Your task to perform on an android device: Search for "apple airpods pro" on newegg, select the first entry, add it to the cart, then select checkout. Image 0: 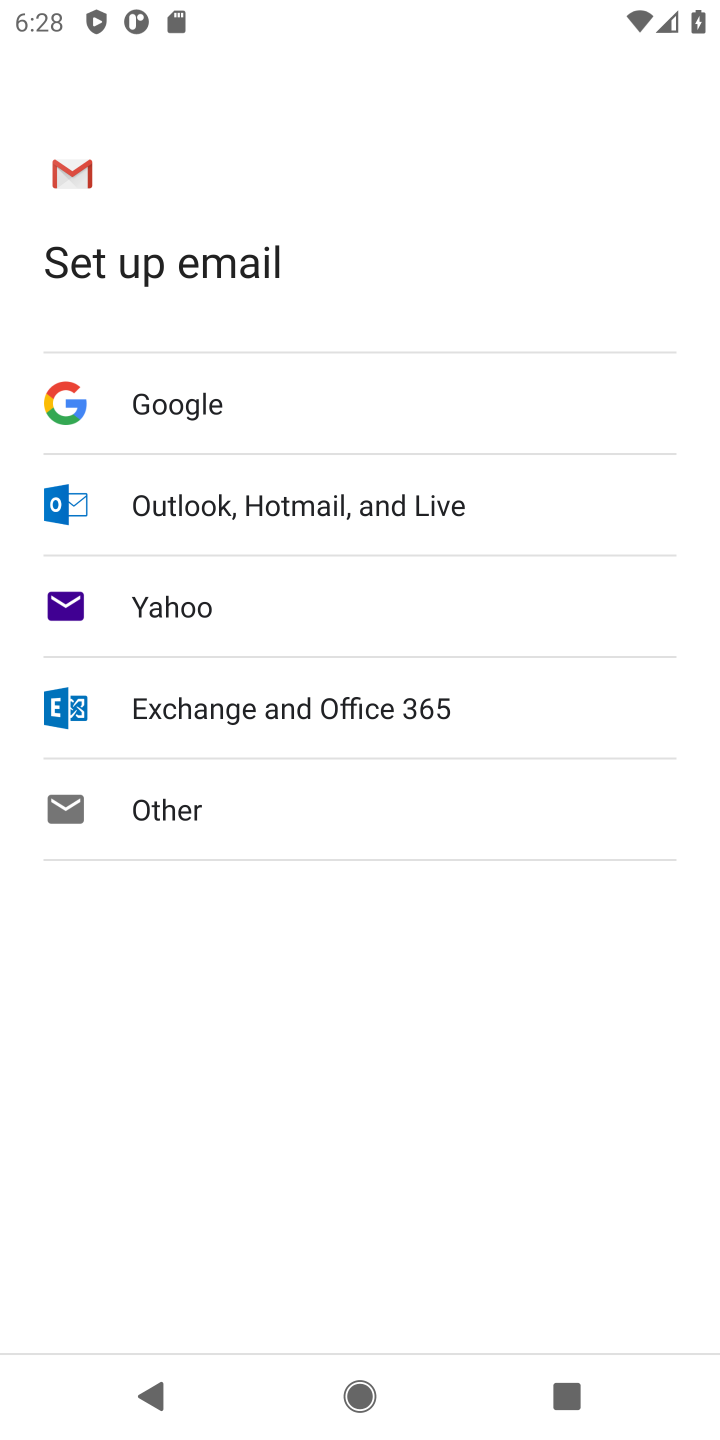
Step 0: press home button
Your task to perform on an android device: Search for "apple airpods pro" on newegg, select the first entry, add it to the cart, then select checkout. Image 1: 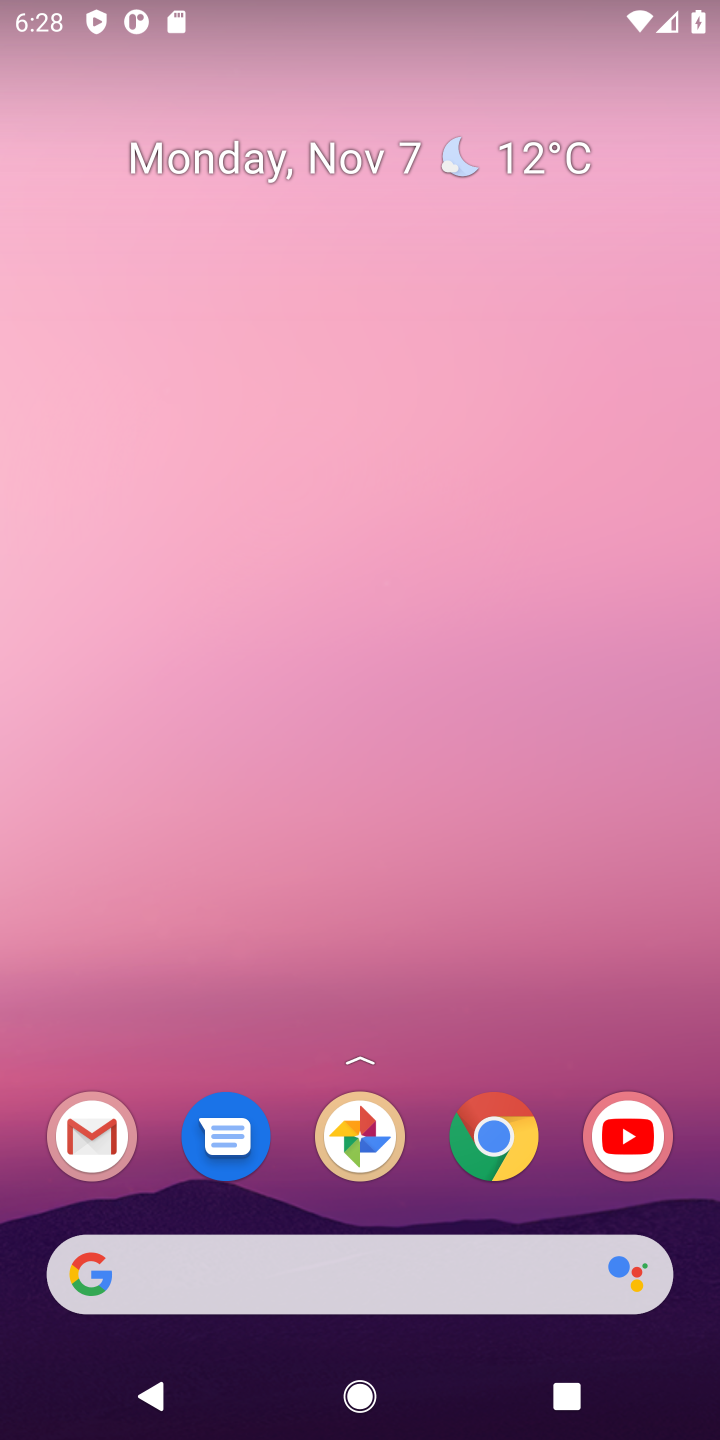
Step 1: click (81, 1264)
Your task to perform on an android device: Search for "apple airpods pro" on newegg, select the first entry, add it to the cart, then select checkout. Image 2: 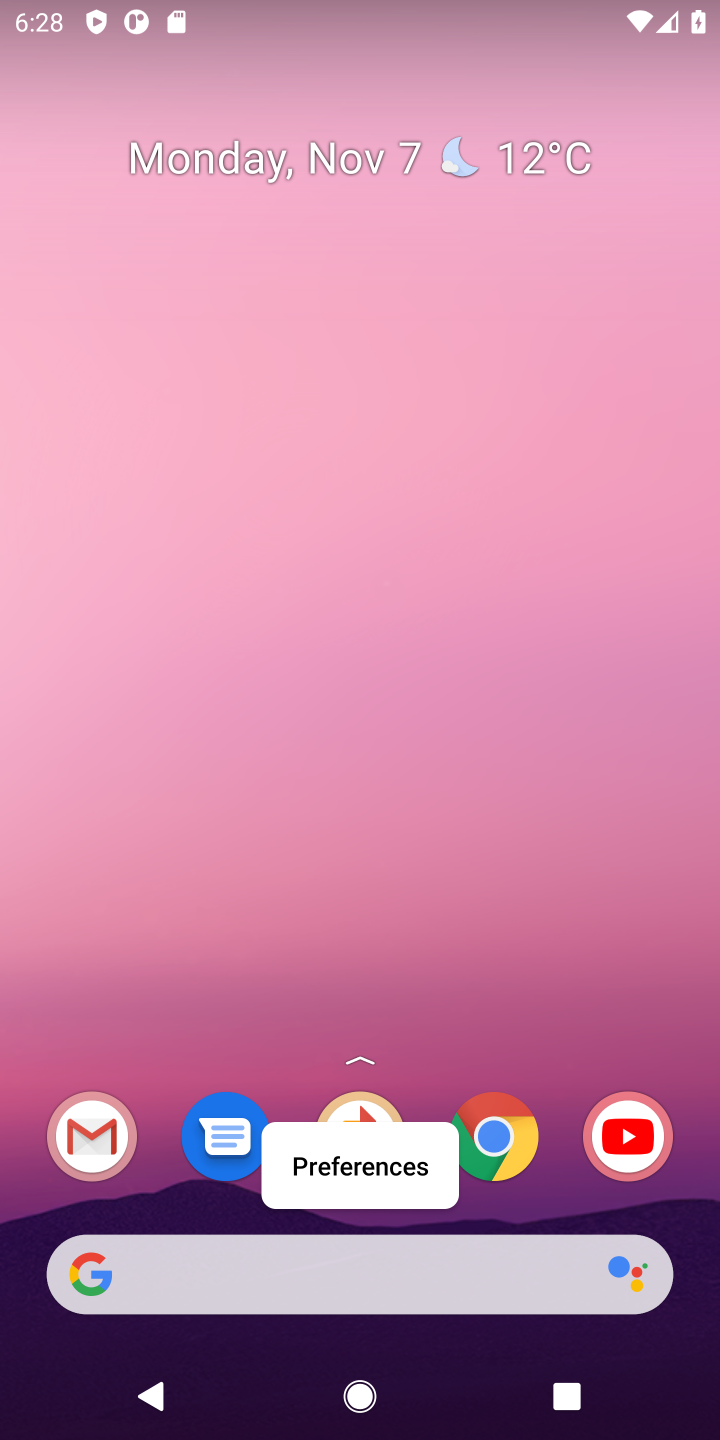
Step 2: click (83, 1266)
Your task to perform on an android device: Search for "apple airpods pro" on newegg, select the first entry, add it to the cart, then select checkout. Image 3: 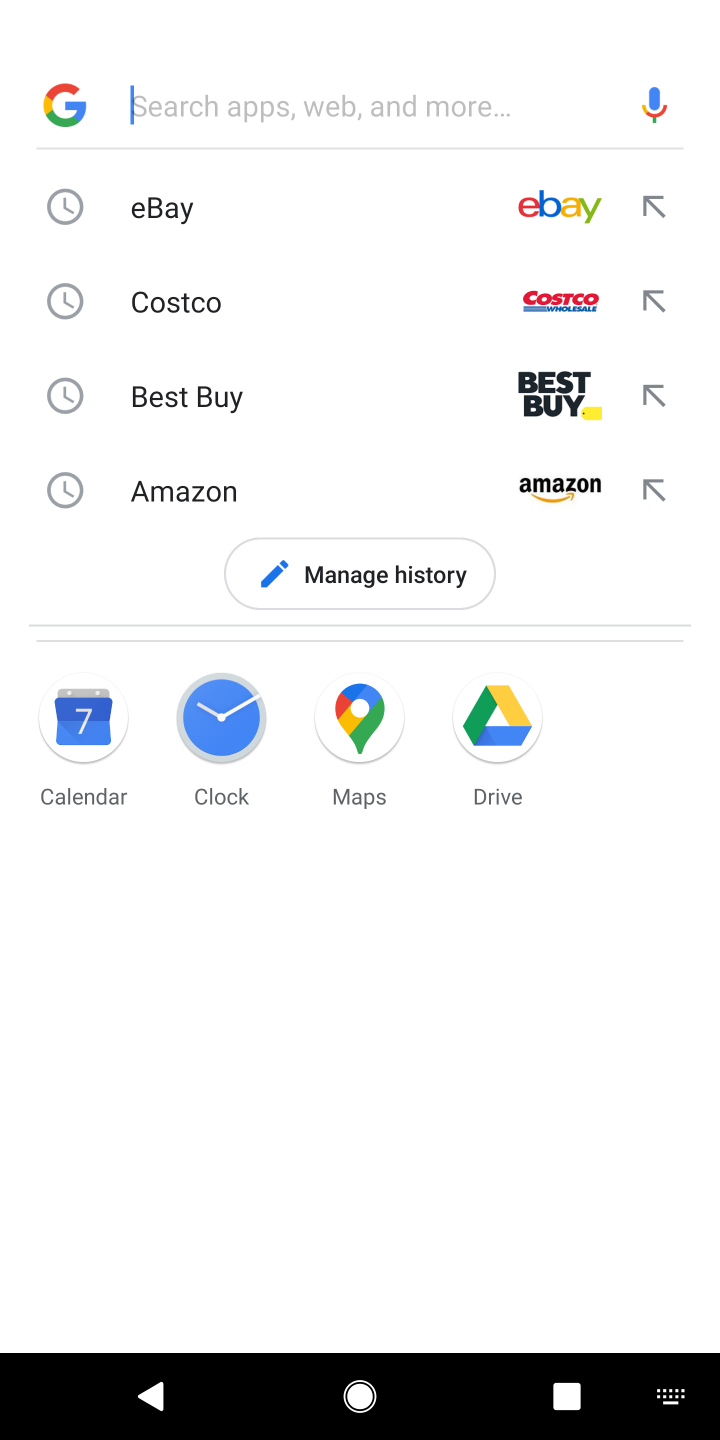
Step 3: type "newegg"
Your task to perform on an android device: Search for "apple airpods pro" on newegg, select the first entry, add it to the cart, then select checkout. Image 4: 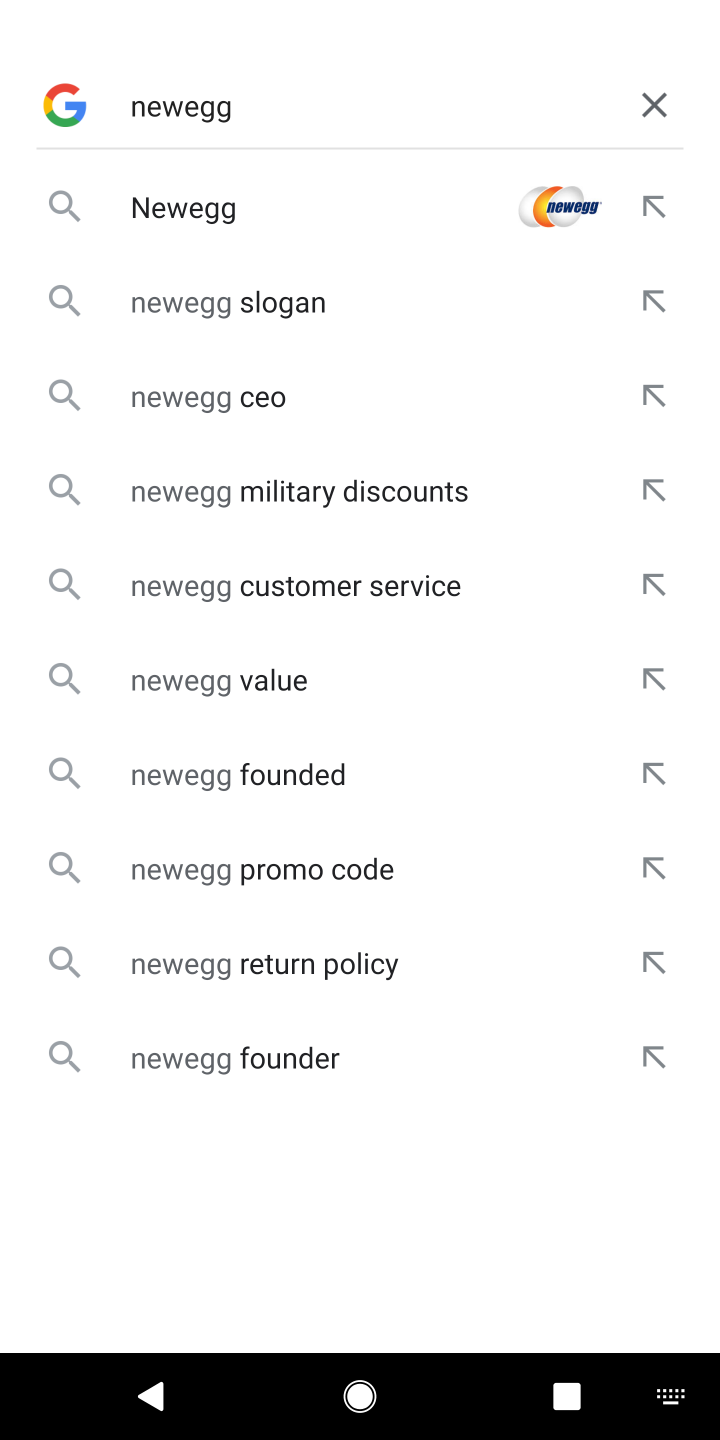
Step 4: type ""
Your task to perform on an android device: Search for "apple airpods pro" on newegg, select the first entry, add it to the cart, then select checkout. Image 5: 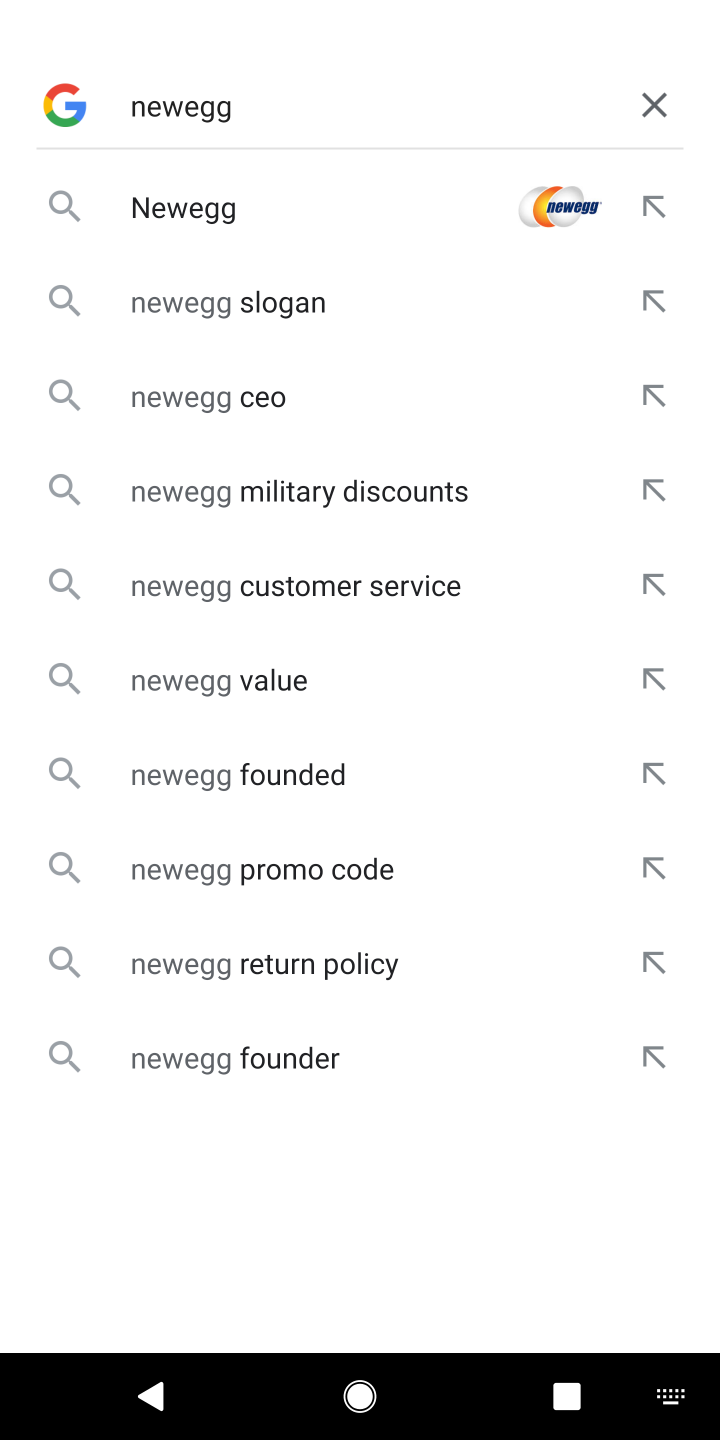
Step 5: click (167, 202)
Your task to perform on an android device: Search for "apple airpods pro" on newegg, select the first entry, add it to the cart, then select checkout. Image 6: 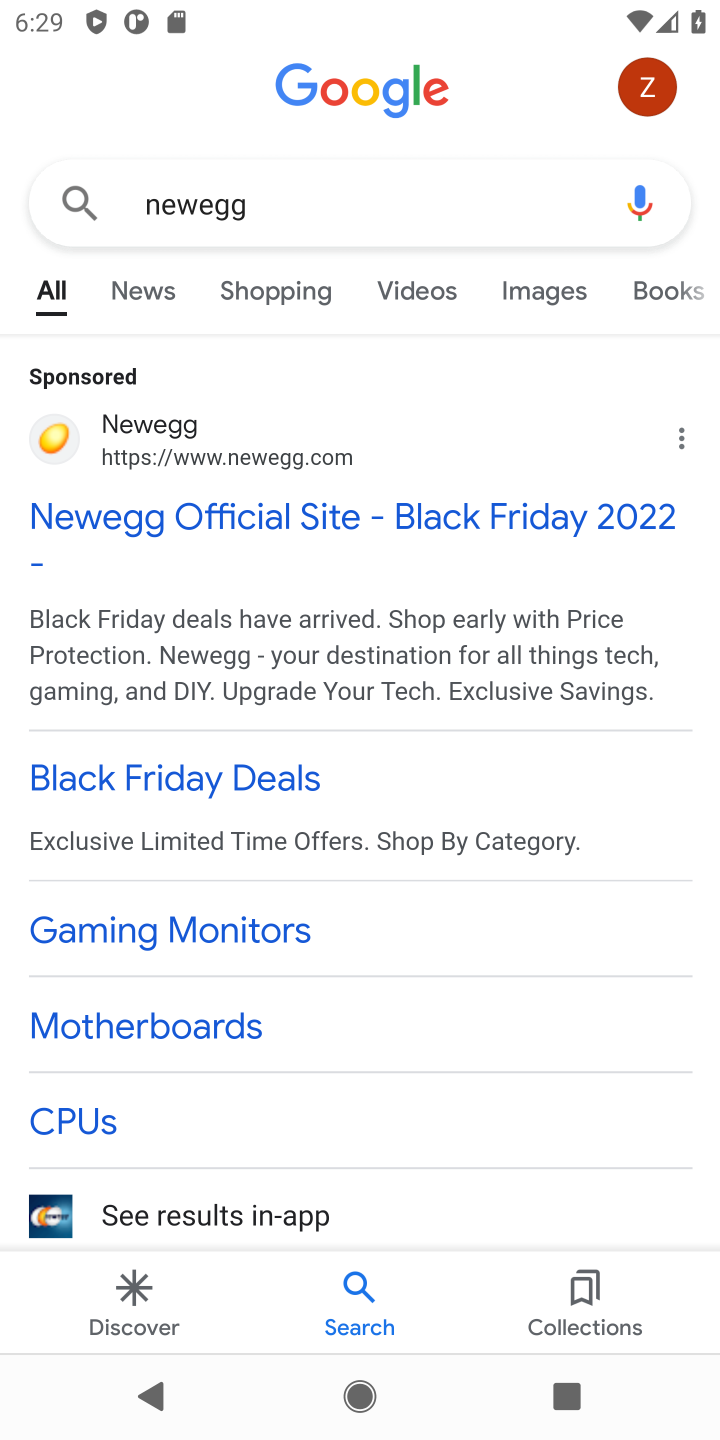
Step 6: click (141, 410)
Your task to perform on an android device: Search for "apple airpods pro" on newegg, select the first entry, add it to the cart, then select checkout. Image 7: 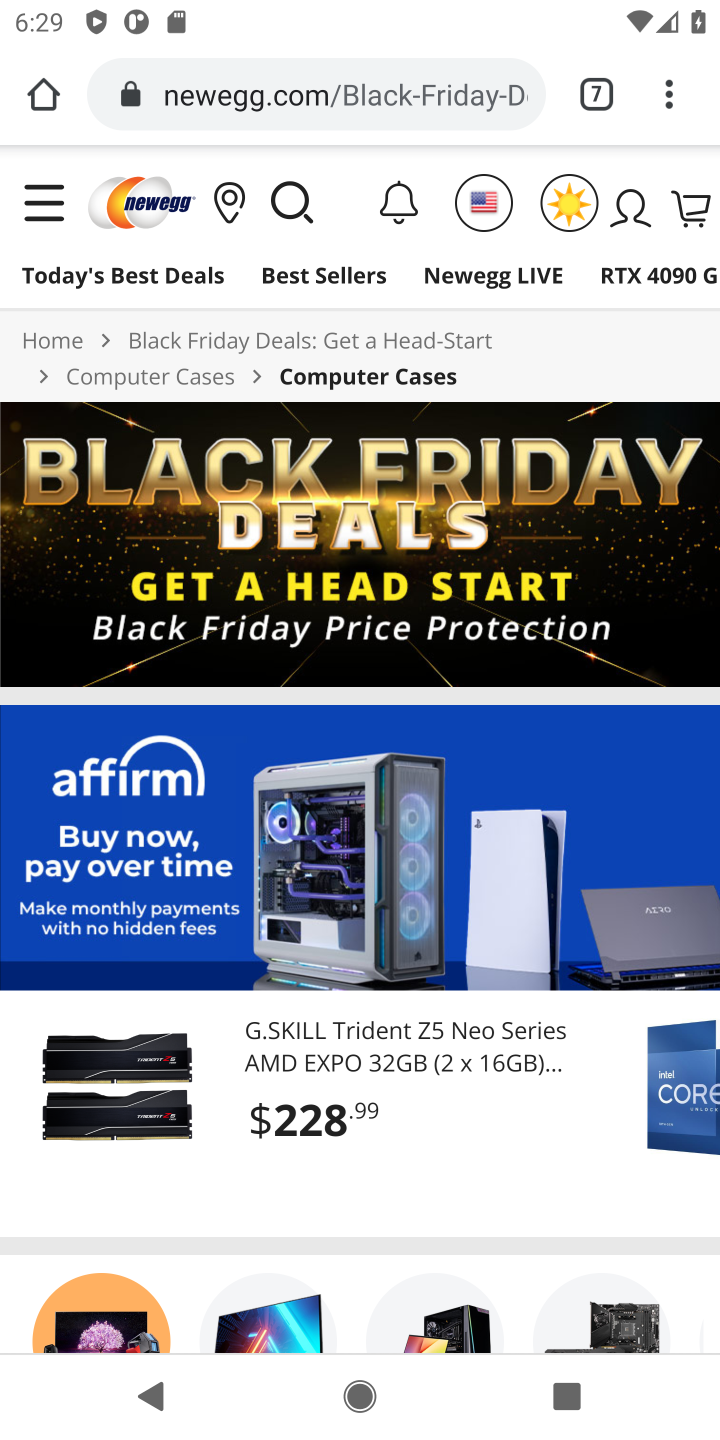
Step 7: click (285, 190)
Your task to perform on an android device: Search for "apple airpods pro" on newegg, select the first entry, add it to the cart, then select checkout. Image 8: 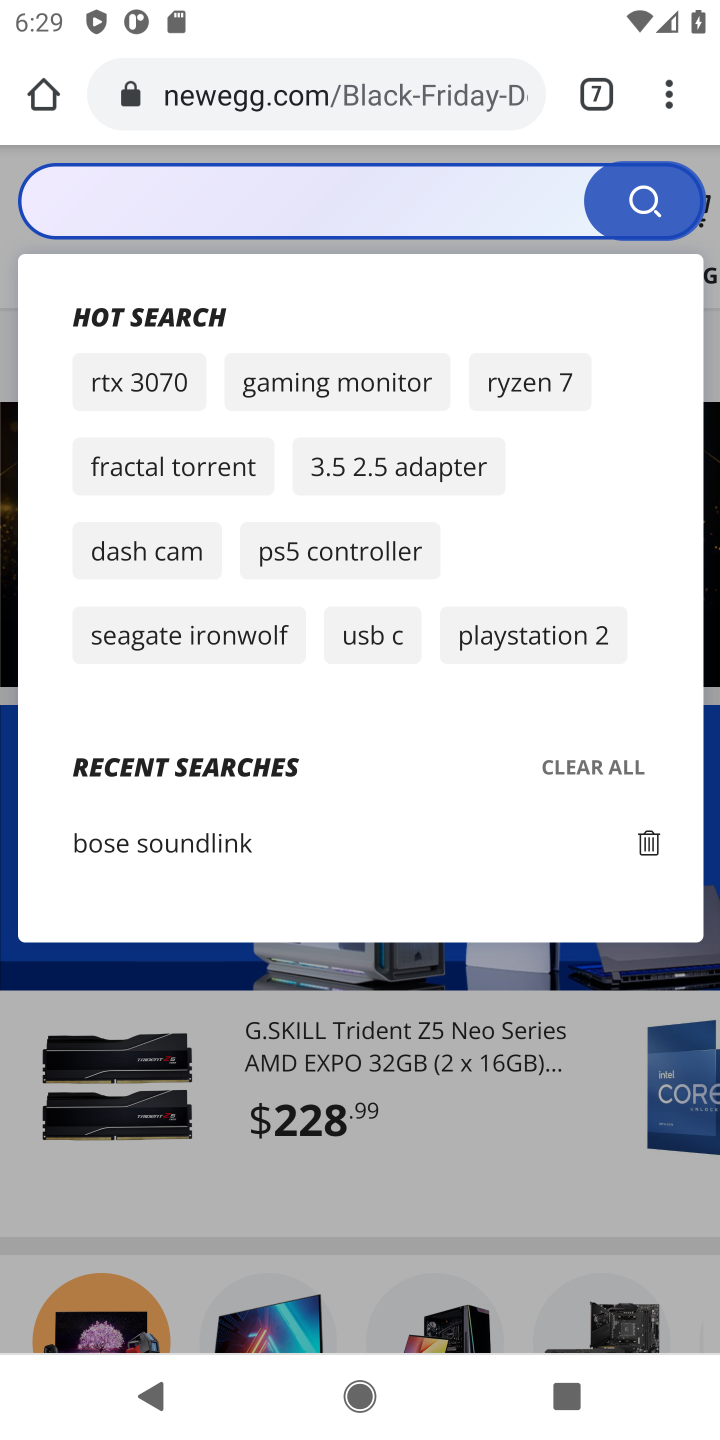
Step 8: click (106, 206)
Your task to perform on an android device: Search for "apple airpods pro" on newegg, select the first entry, add it to the cart, then select checkout. Image 9: 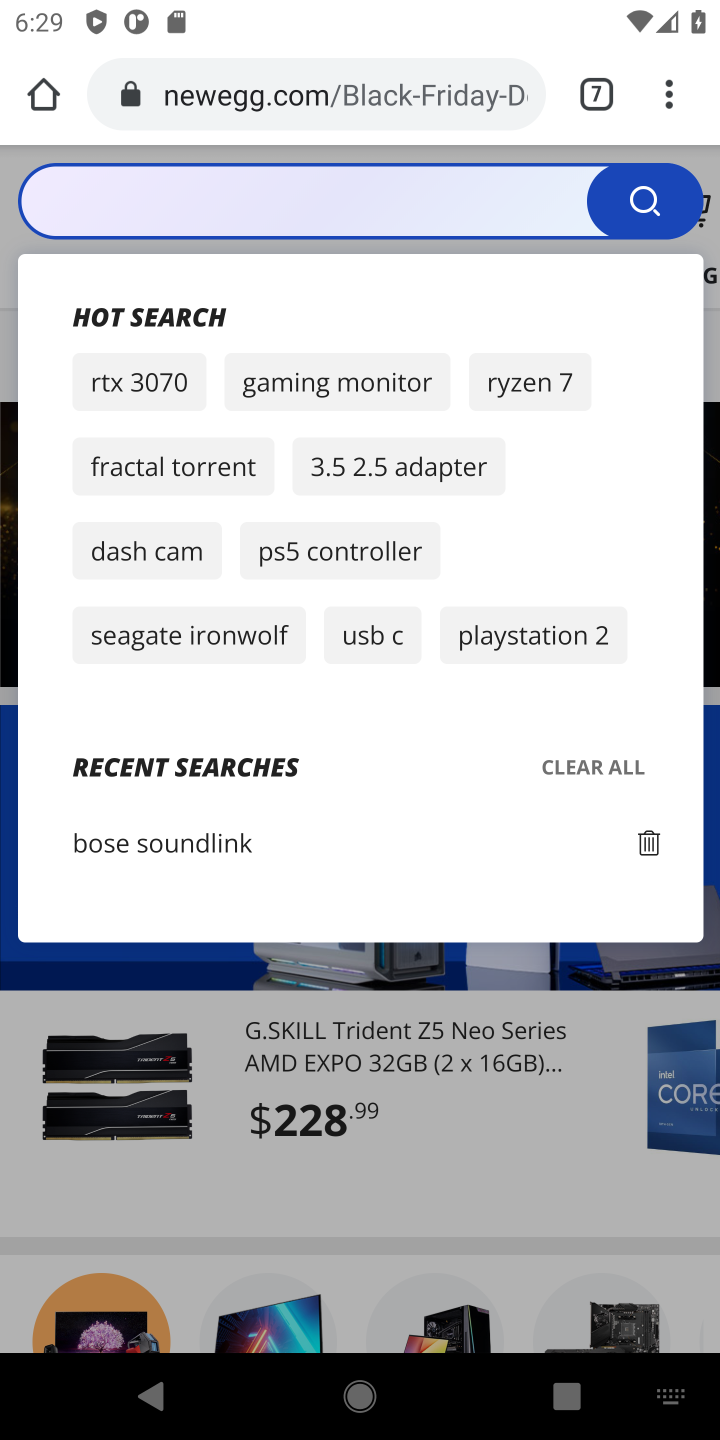
Step 9: type "apple airpods pro"
Your task to perform on an android device: Search for "apple airpods pro" on newegg, select the first entry, add it to the cart, then select checkout. Image 10: 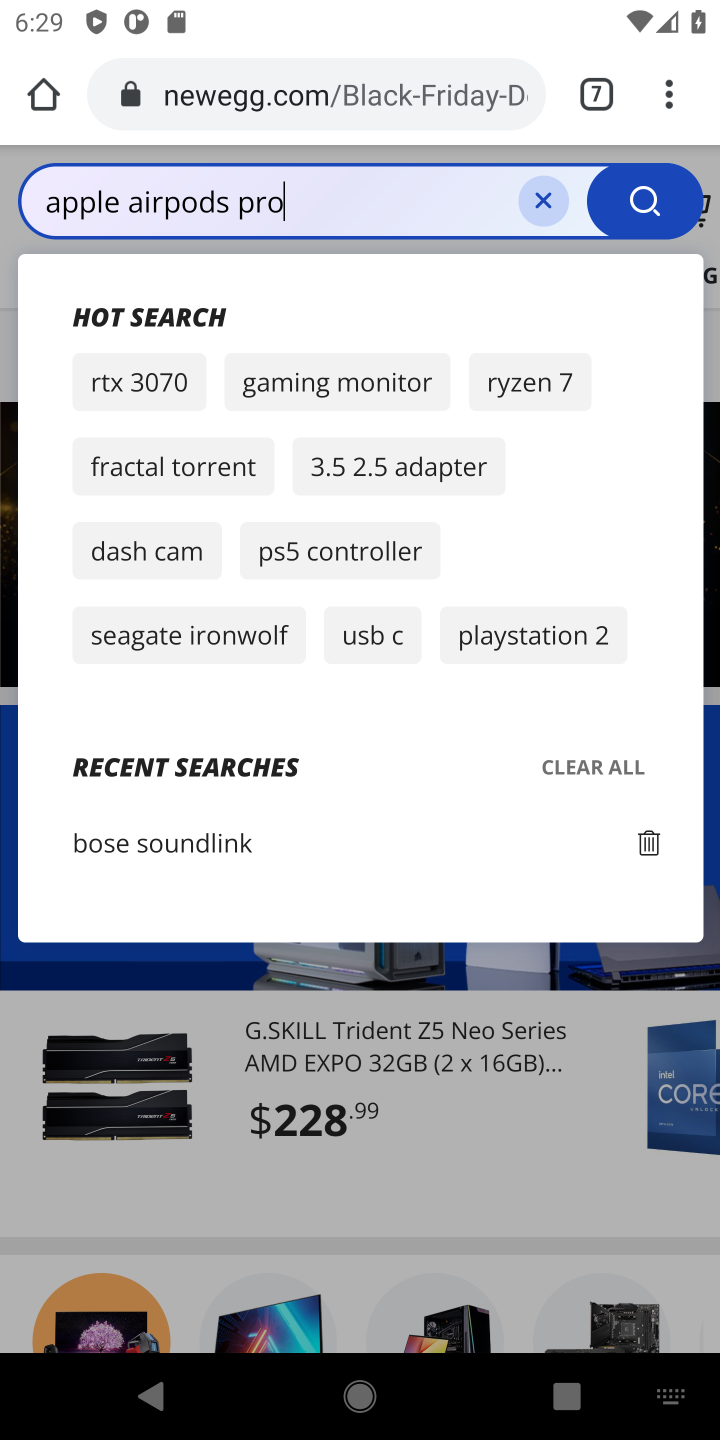
Step 10: type ""
Your task to perform on an android device: Search for "apple airpods pro" on newegg, select the first entry, add it to the cart, then select checkout. Image 11: 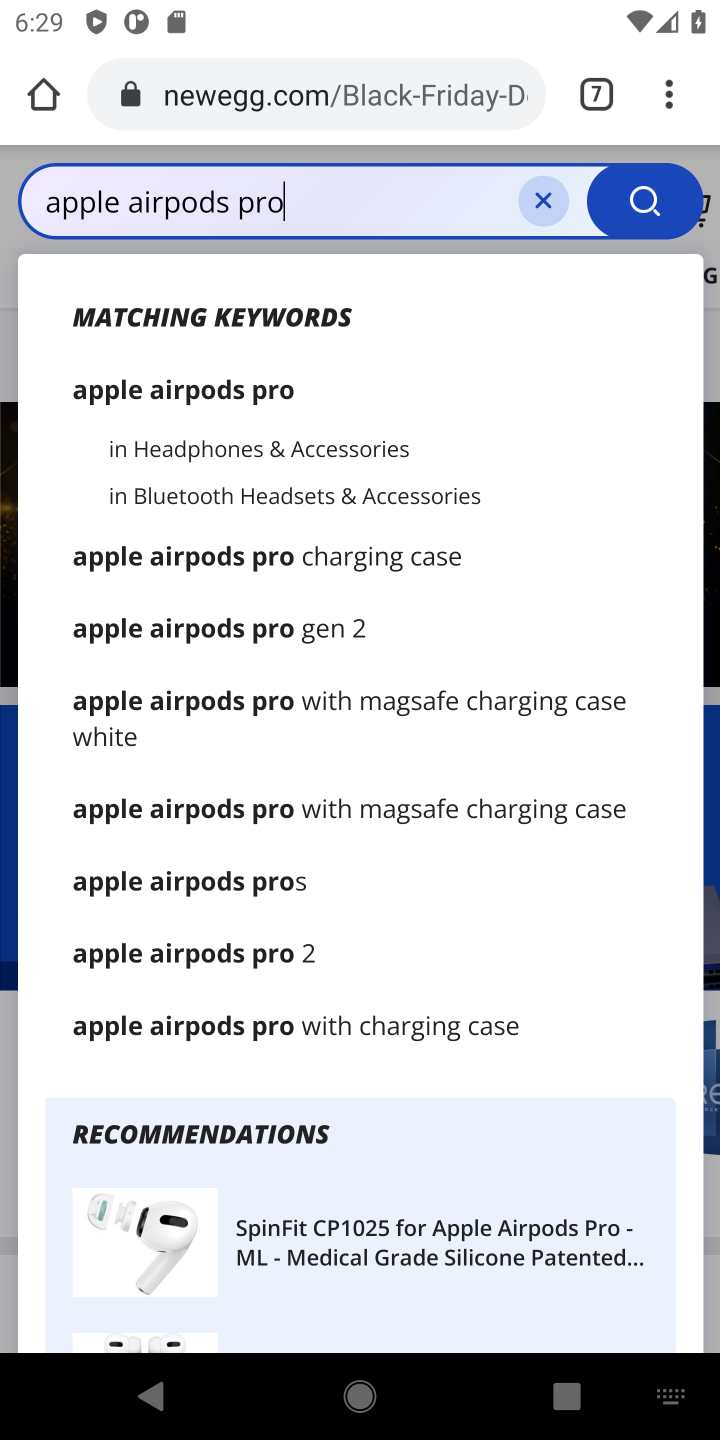
Step 11: click (179, 391)
Your task to perform on an android device: Search for "apple airpods pro" on newegg, select the first entry, add it to the cart, then select checkout. Image 12: 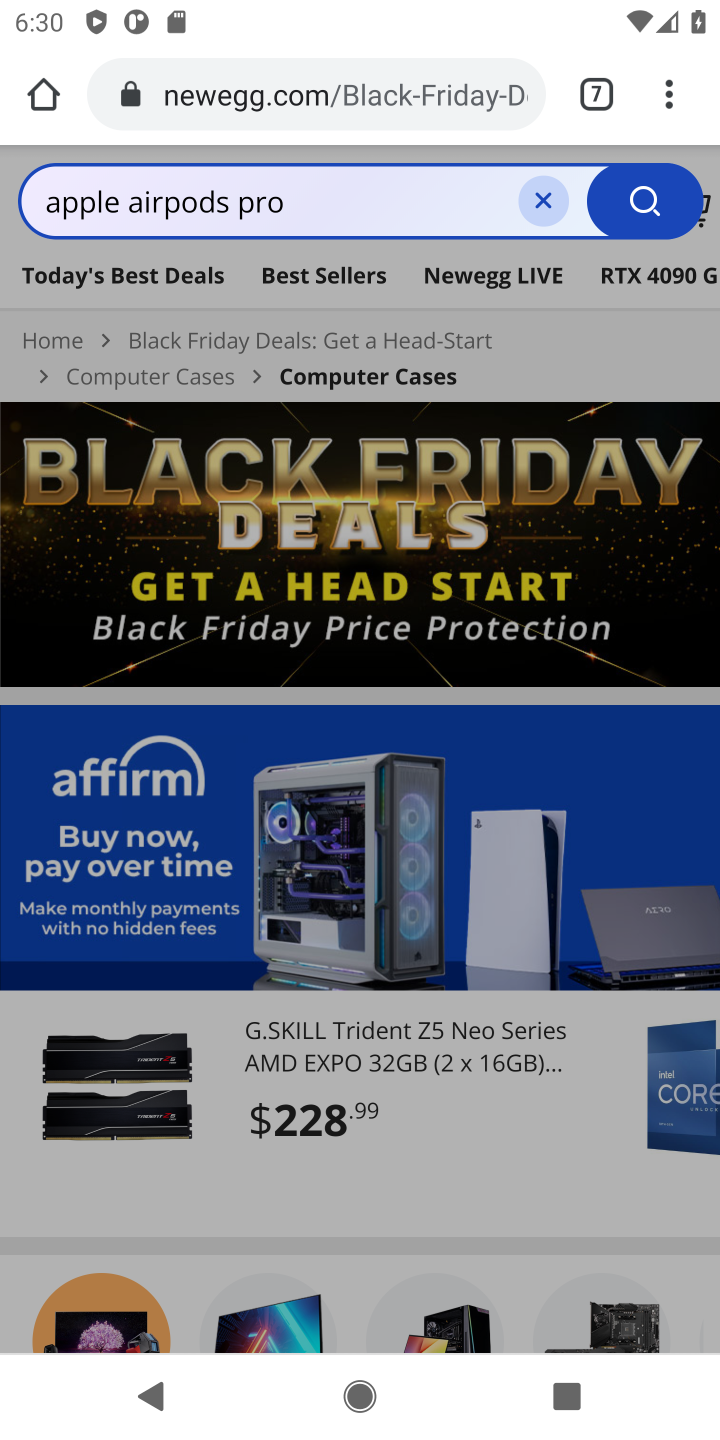
Step 12: click (638, 192)
Your task to perform on an android device: Search for "apple airpods pro" on newegg, select the first entry, add it to the cart, then select checkout. Image 13: 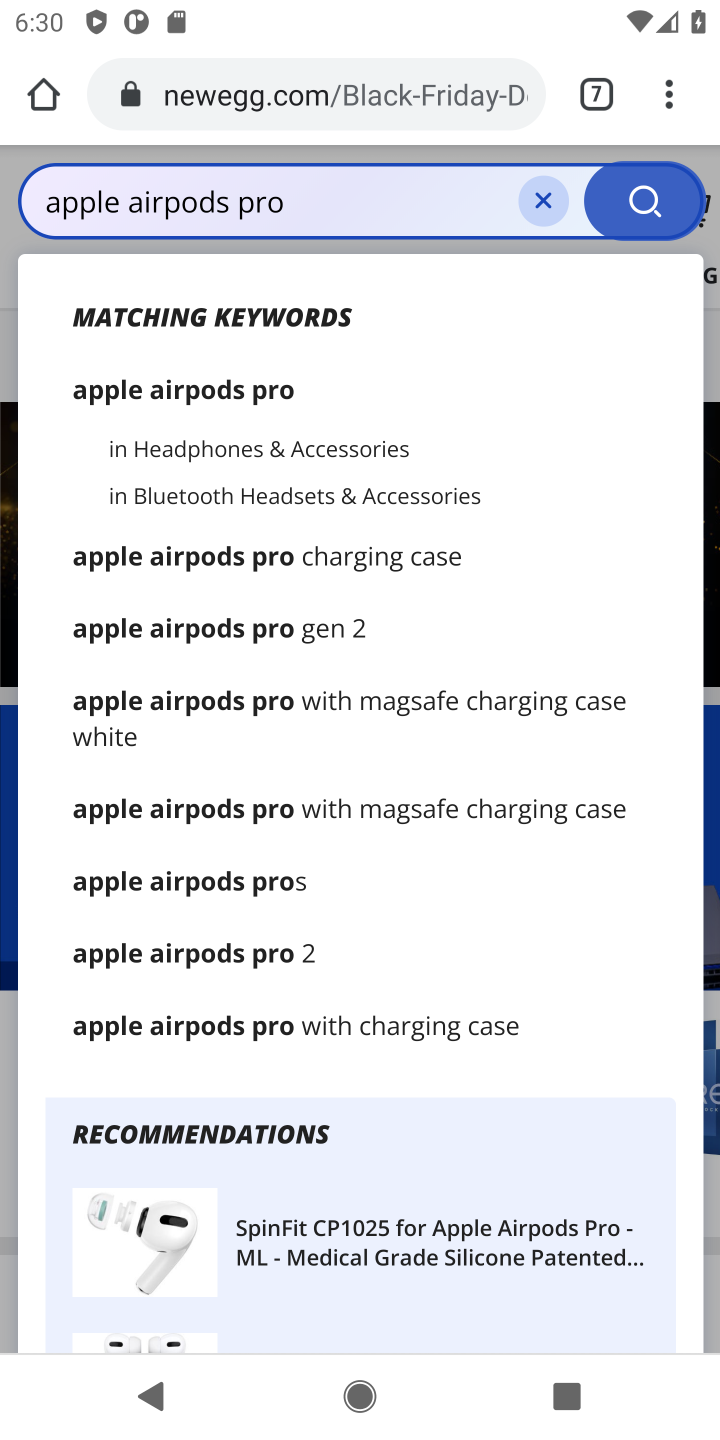
Step 13: click (644, 200)
Your task to perform on an android device: Search for "apple airpods pro" on newegg, select the first entry, add it to the cart, then select checkout. Image 14: 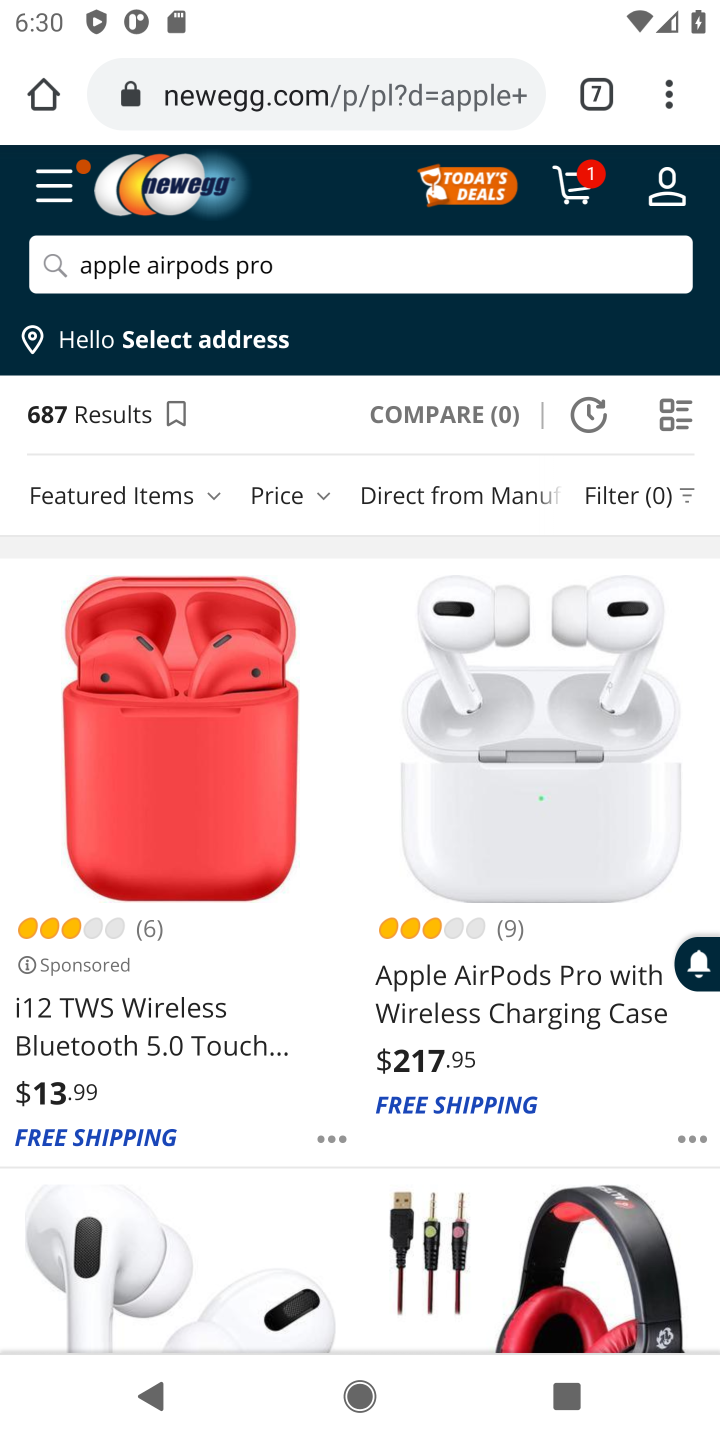
Step 14: click (451, 902)
Your task to perform on an android device: Search for "apple airpods pro" on newegg, select the first entry, add it to the cart, then select checkout. Image 15: 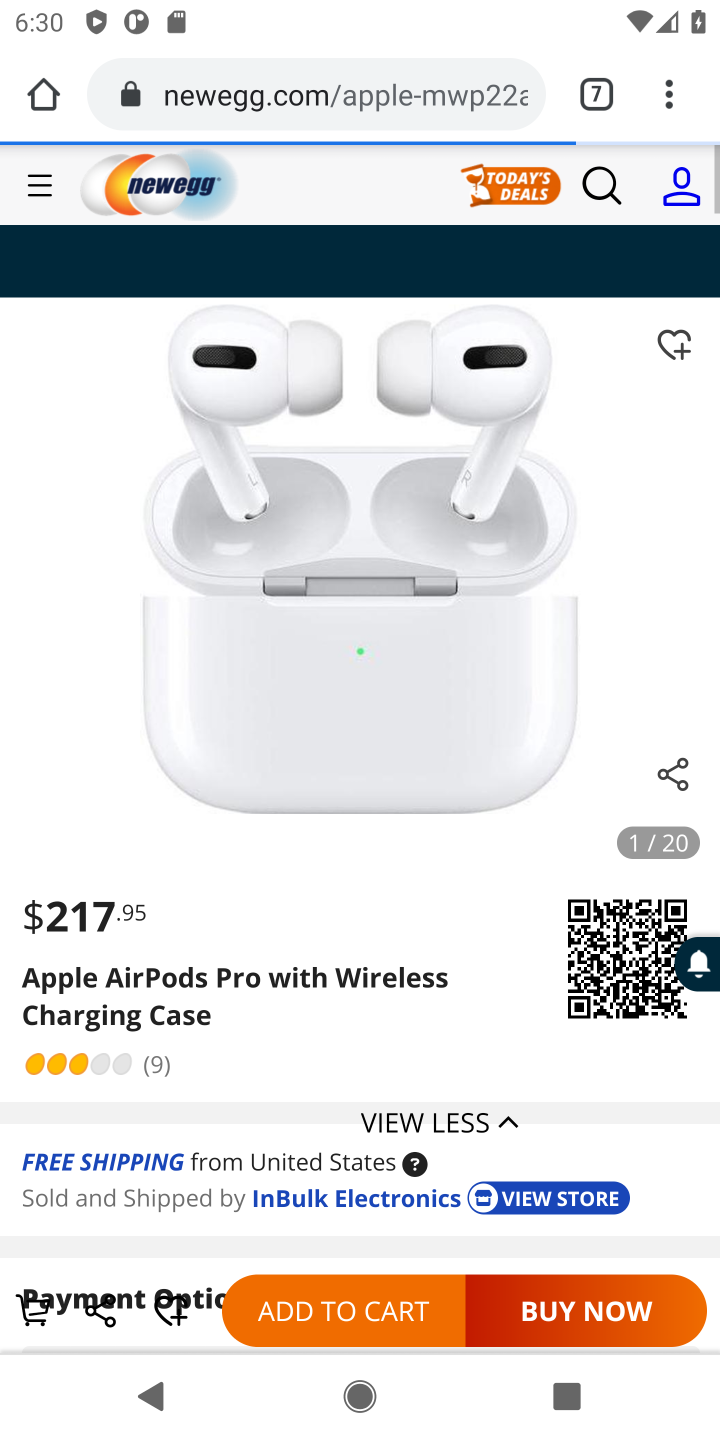
Step 15: click (518, 992)
Your task to perform on an android device: Search for "apple airpods pro" on newegg, select the first entry, add it to the cart, then select checkout. Image 16: 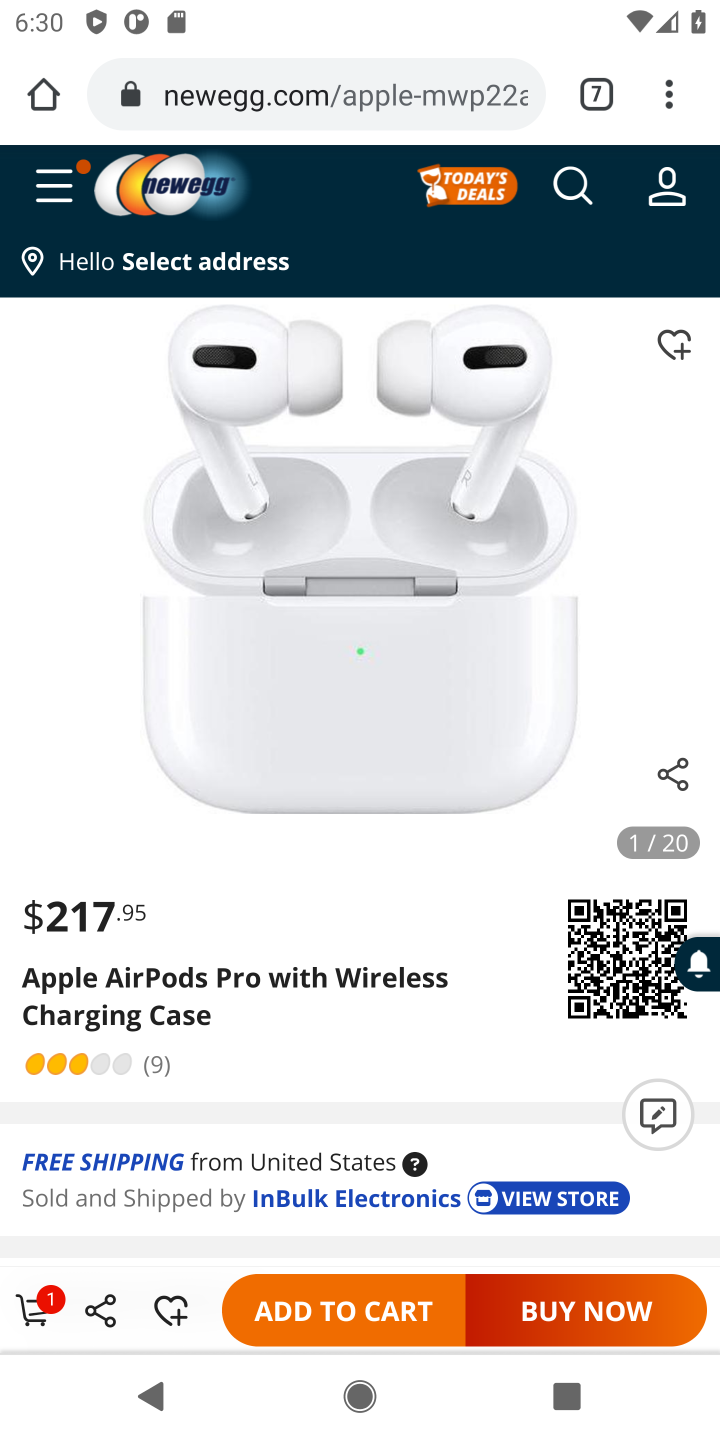
Step 16: click (345, 1310)
Your task to perform on an android device: Search for "apple airpods pro" on newegg, select the first entry, add it to the cart, then select checkout. Image 17: 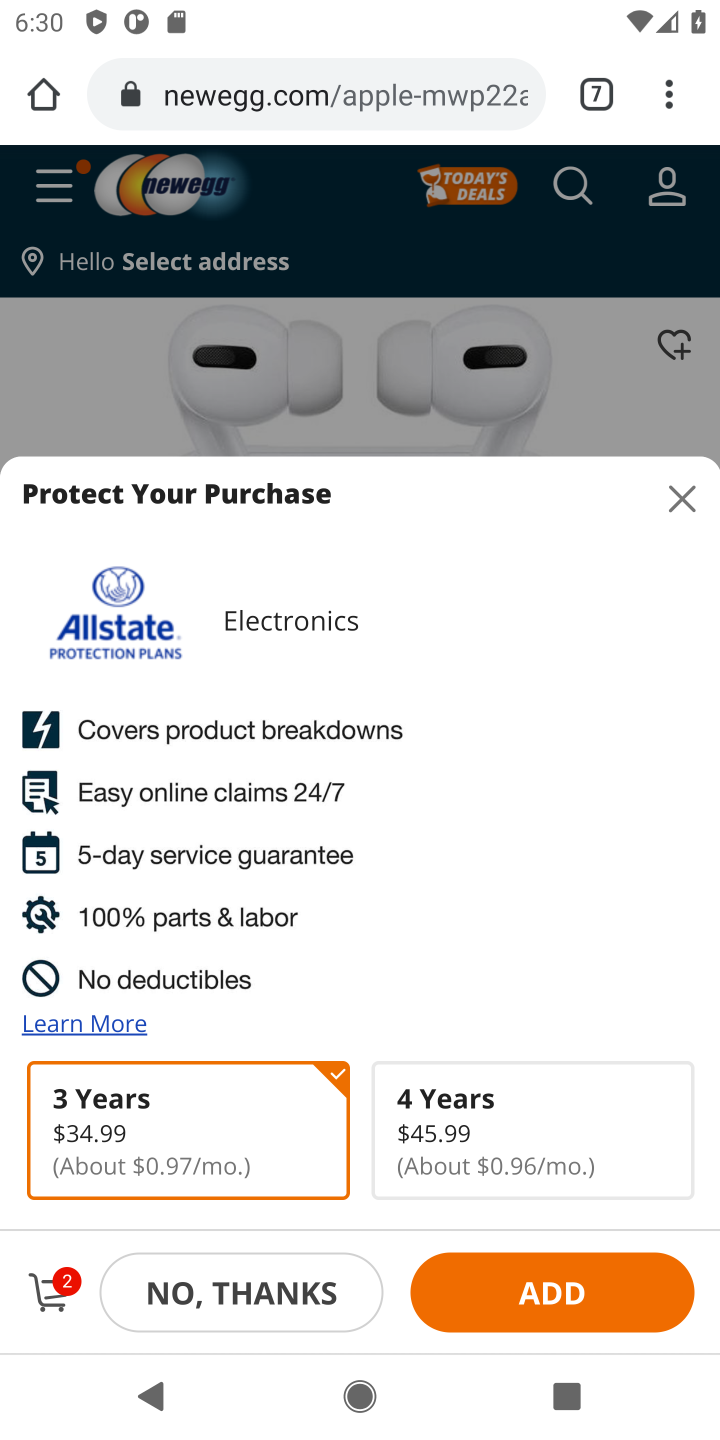
Step 17: click (53, 1284)
Your task to perform on an android device: Search for "apple airpods pro" on newegg, select the first entry, add it to the cart, then select checkout. Image 18: 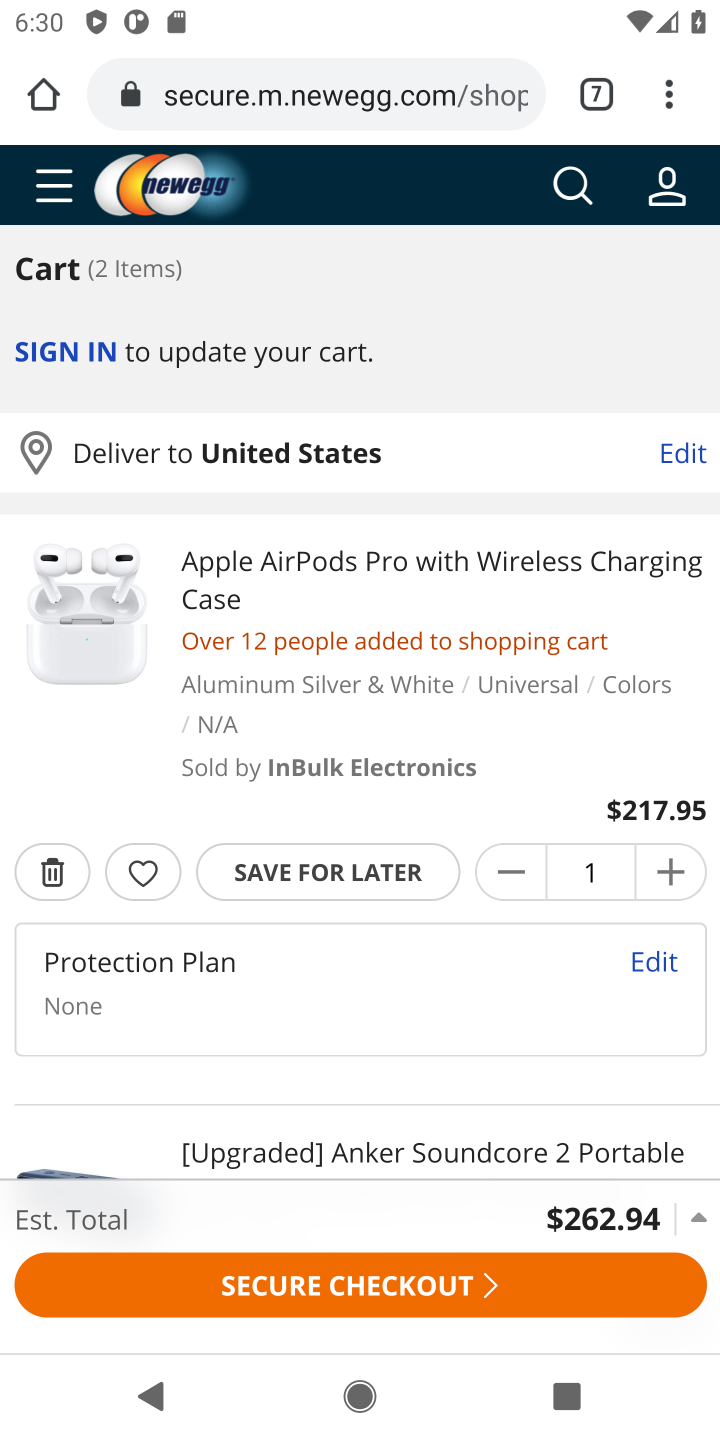
Step 18: click (444, 1285)
Your task to perform on an android device: Search for "apple airpods pro" on newegg, select the first entry, add it to the cart, then select checkout. Image 19: 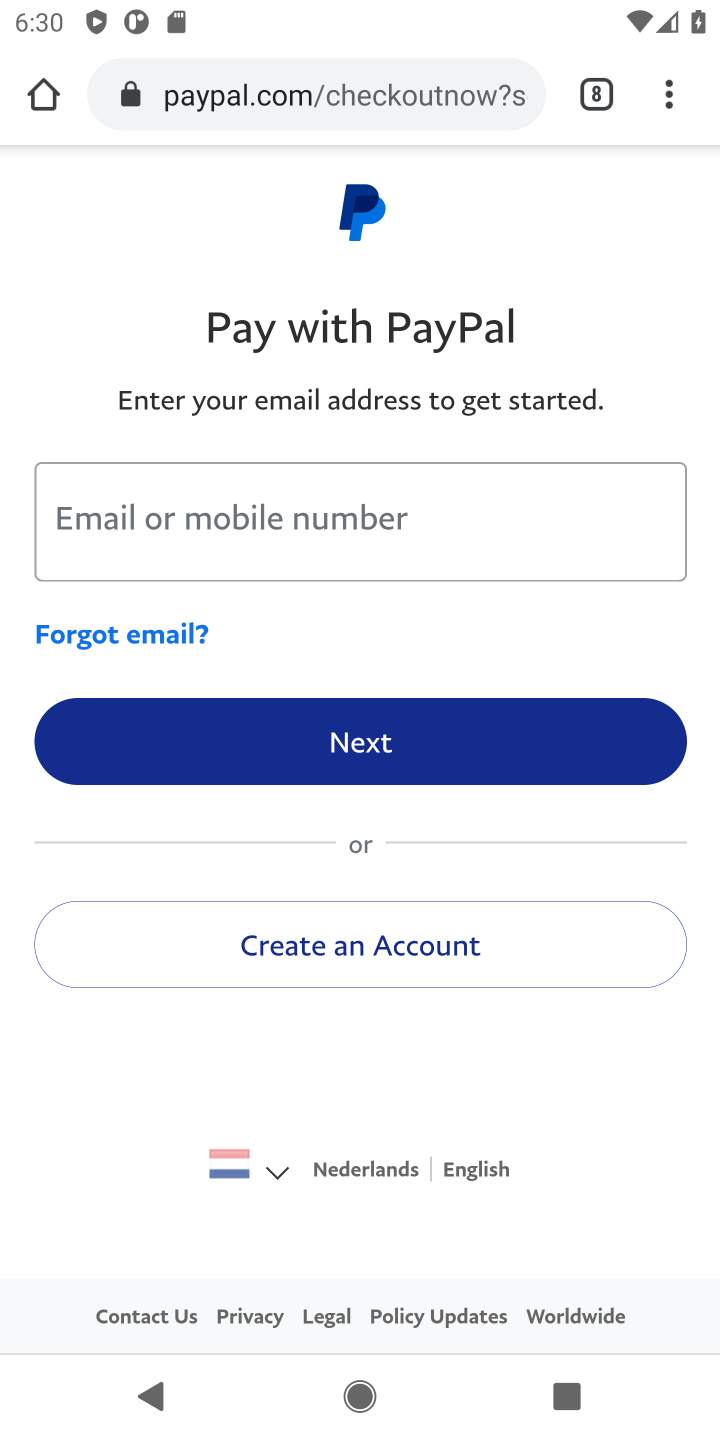
Step 19: task complete